Your task to perform on an android device: Open CNN.com Image 0: 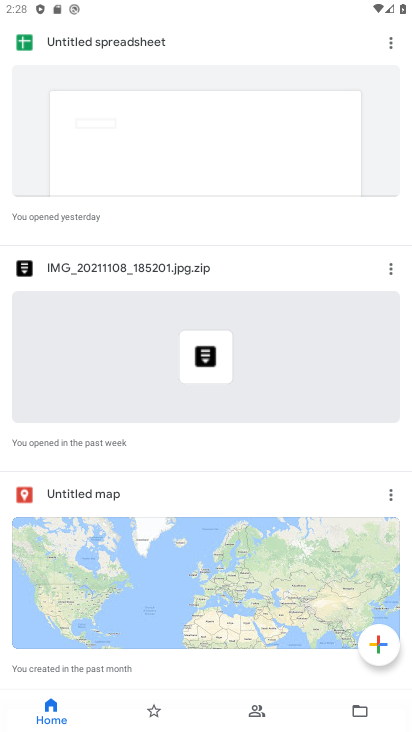
Step 0: press home button
Your task to perform on an android device: Open CNN.com Image 1: 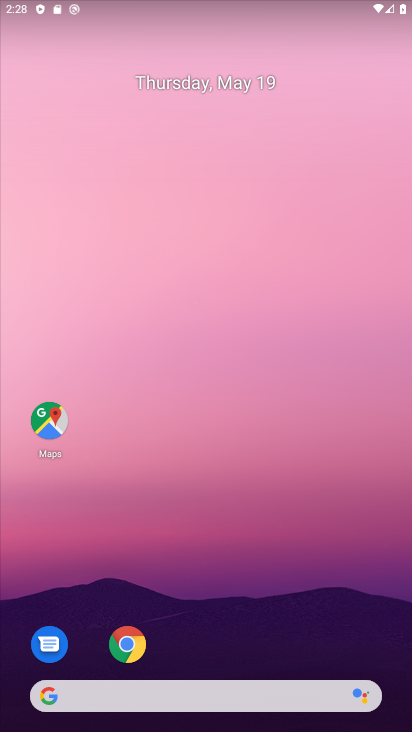
Step 1: click (126, 637)
Your task to perform on an android device: Open CNN.com Image 2: 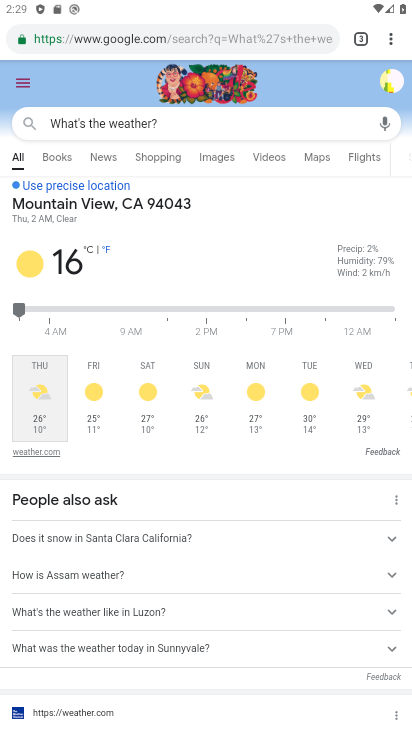
Step 2: click (384, 42)
Your task to perform on an android device: Open CNN.com Image 3: 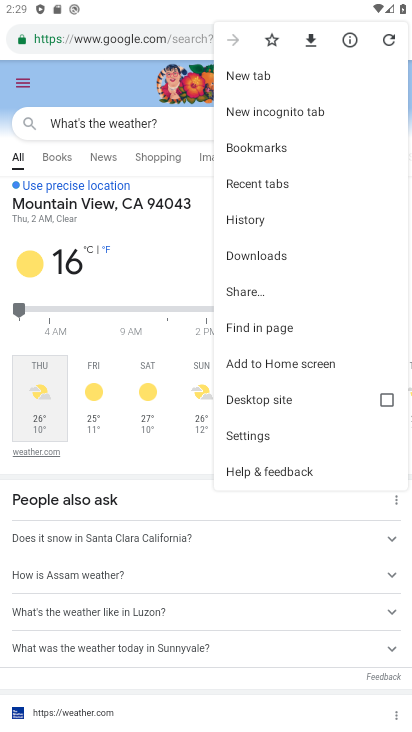
Step 3: click (273, 74)
Your task to perform on an android device: Open CNN.com Image 4: 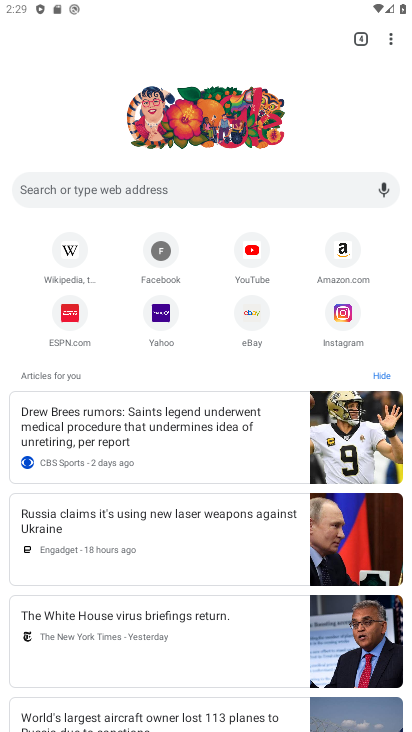
Step 4: click (218, 178)
Your task to perform on an android device: Open CNN.com Image 5: 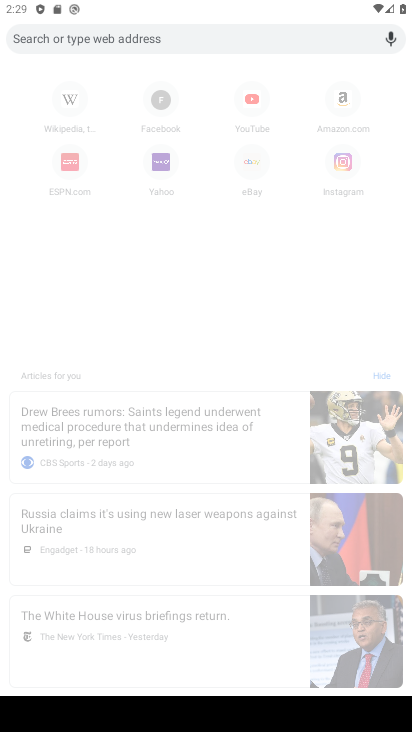
Step 5: type "CNN.com"
Your task to perform on an android device: Open CNN.com Image 6: 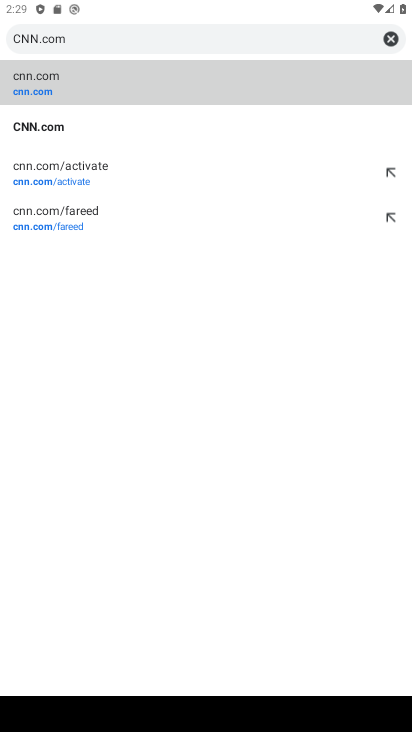
Step 6: click (86, 119)
Your task to perform on an android device: Open CNN.com Image 7: 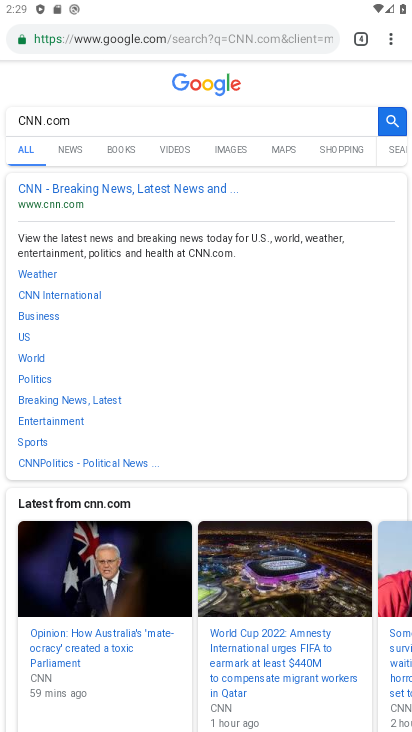
Step 7: task complete